Your task to perform on an android device: Search for pizza restaurants on Maps Image 0: 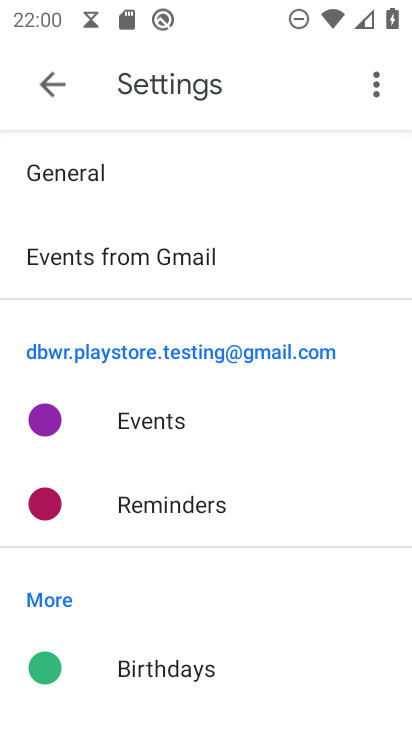
Step 0: press home button
Your task to perform on an android device: Search for pizza restaurants on Maps Image 1: 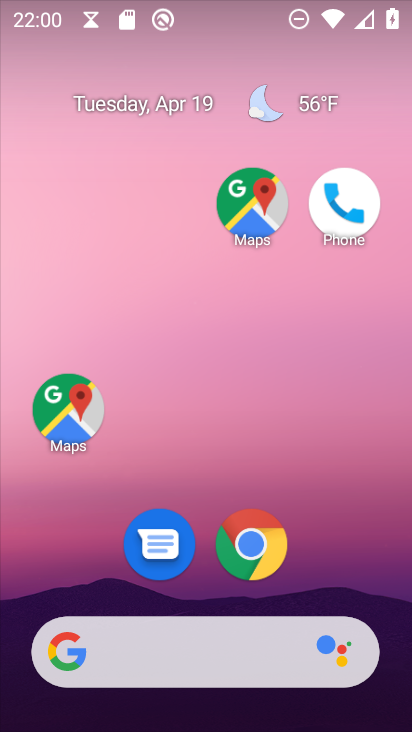
Step 1: drag from (165, 635) to (304, 56)
Your task to perform on an android device: Search for pizza restaurants on Maps Image 2: 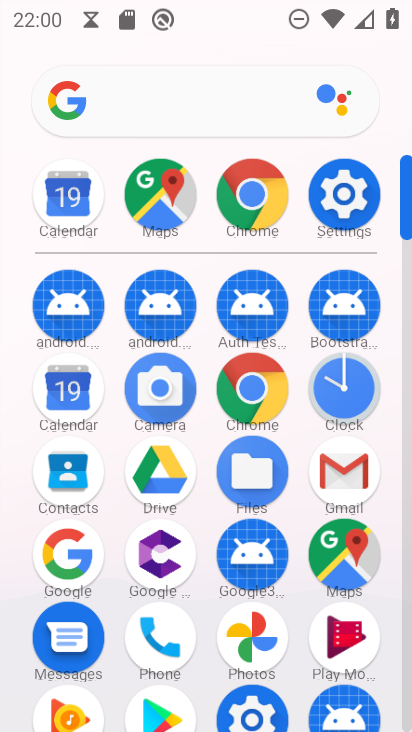
Step 2: click (147, 209)
Your task to perform on an android device: Search for pizza restaurants on Maps Image 3: 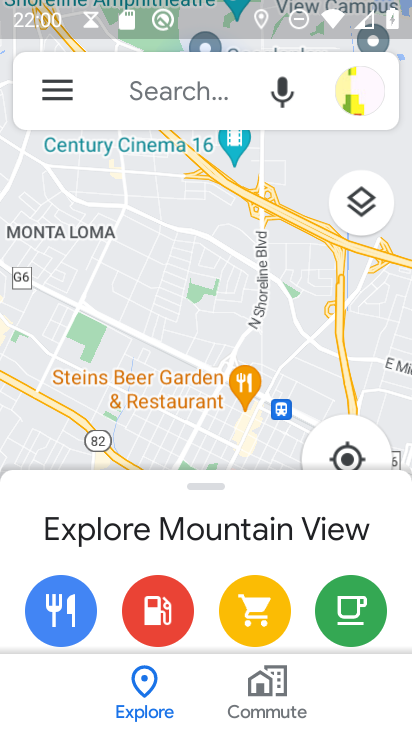
Step 3: click (169, 87)
Your task to perform on an android device: Search for pizza restaurants on Maps Image 4: 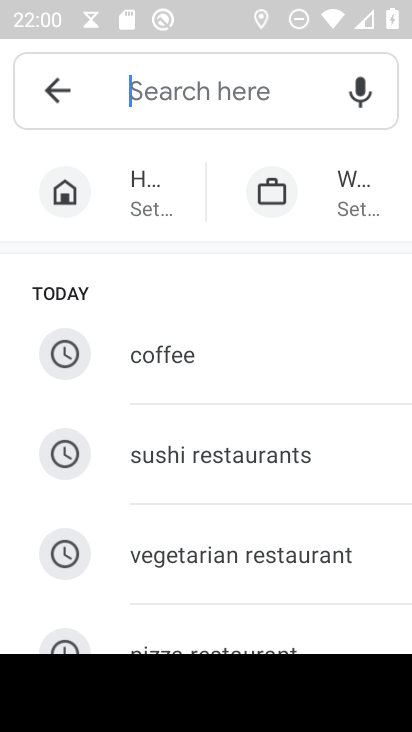
Step 4: type "pizza"
Your task to perform on an android device: Search for pizza restaurants on Maps Image 5: 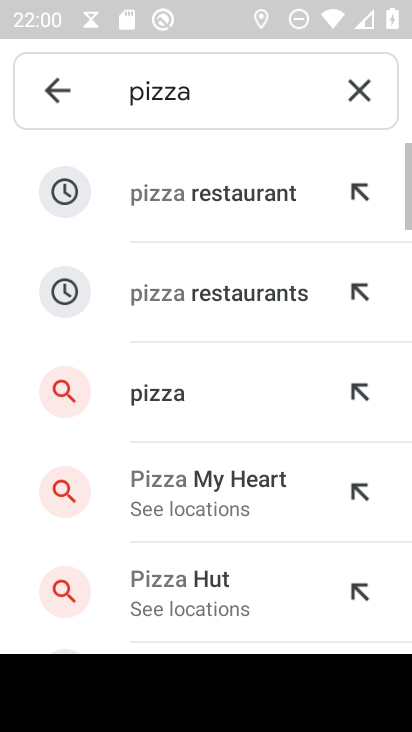
Step 5: click (214, 203)
Your task to perform on an android device: Search for pizza restaurants on Maps Image 6: 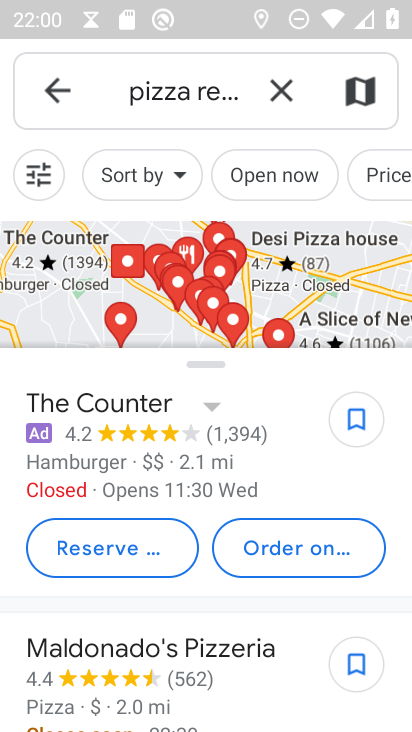
Step 6: task complete